Your task to perform on an android device: Search for rayovac triple a on bestbuy.com, select the first entry, add it to the cart, then select checkout. Image 0: 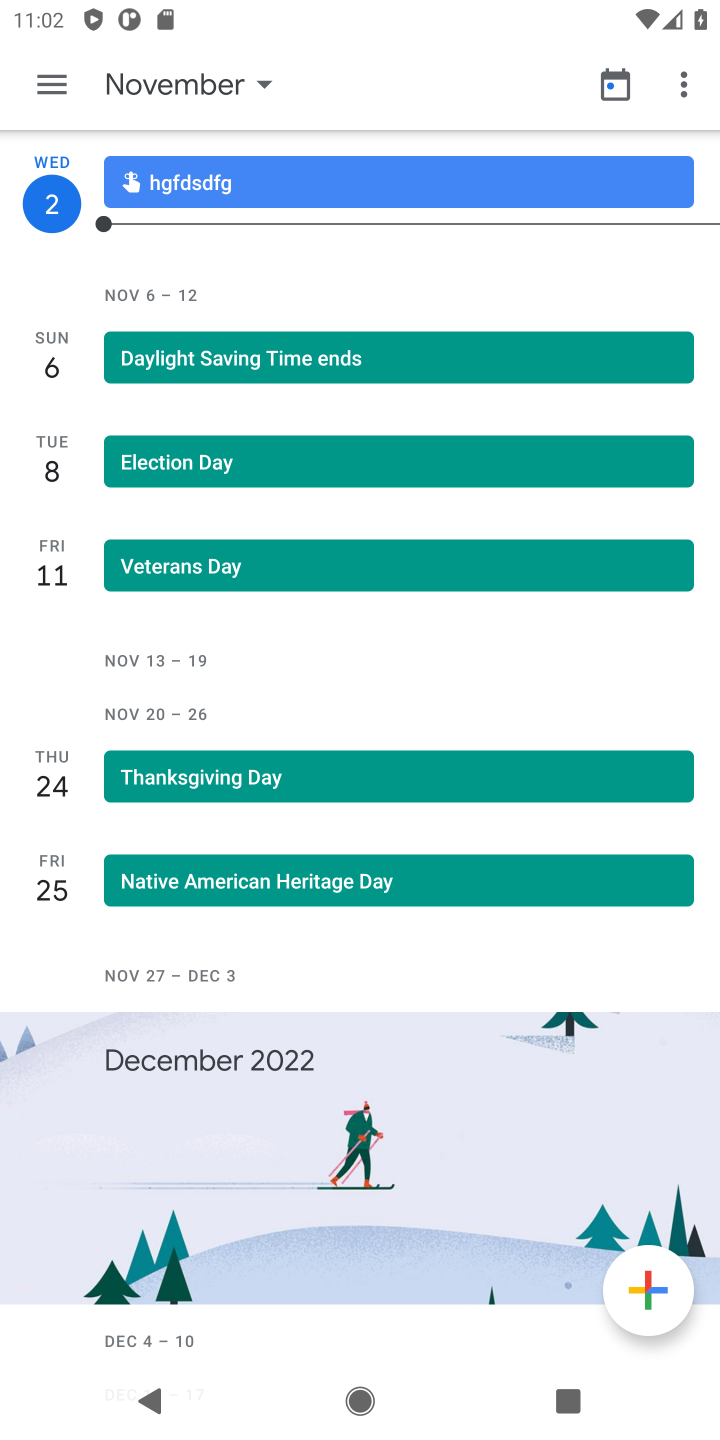
Step 0: press home button
Your task to perform on an android device: Search for rayovac triple a on bestbuy.com, select the first entry, add it to the cart, then select checkout. Image 1: 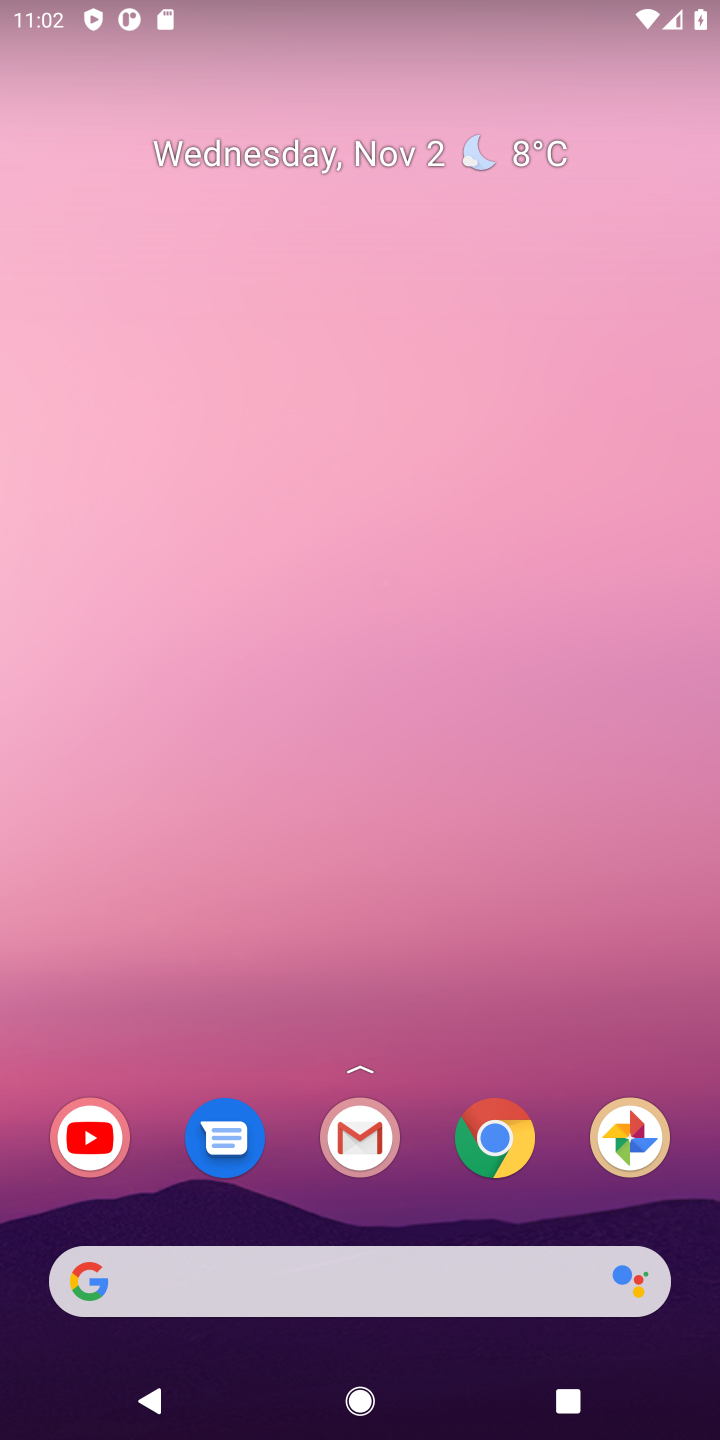
Step 1: click (495, 1147)
Your task to perform on an android device: Search for rayovac triple a on bestbuy.com, select the first entry, add it to the cart, then select checkout. Image 2: 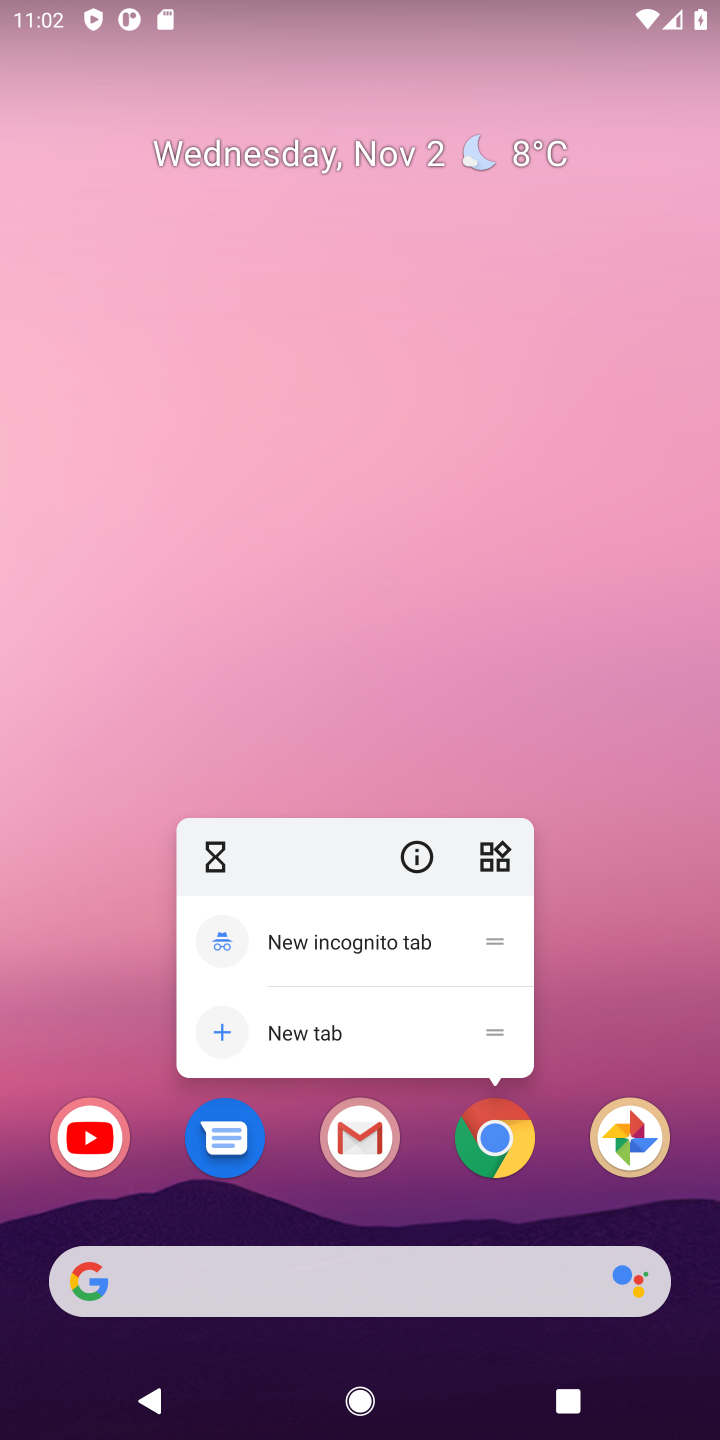
Step 2: click (495, 1147)
Your task to perform on an android device: Search for rayovac triple a on bestbuy.com, select the first entry, add it to the cart, then select checkout. Image 3: 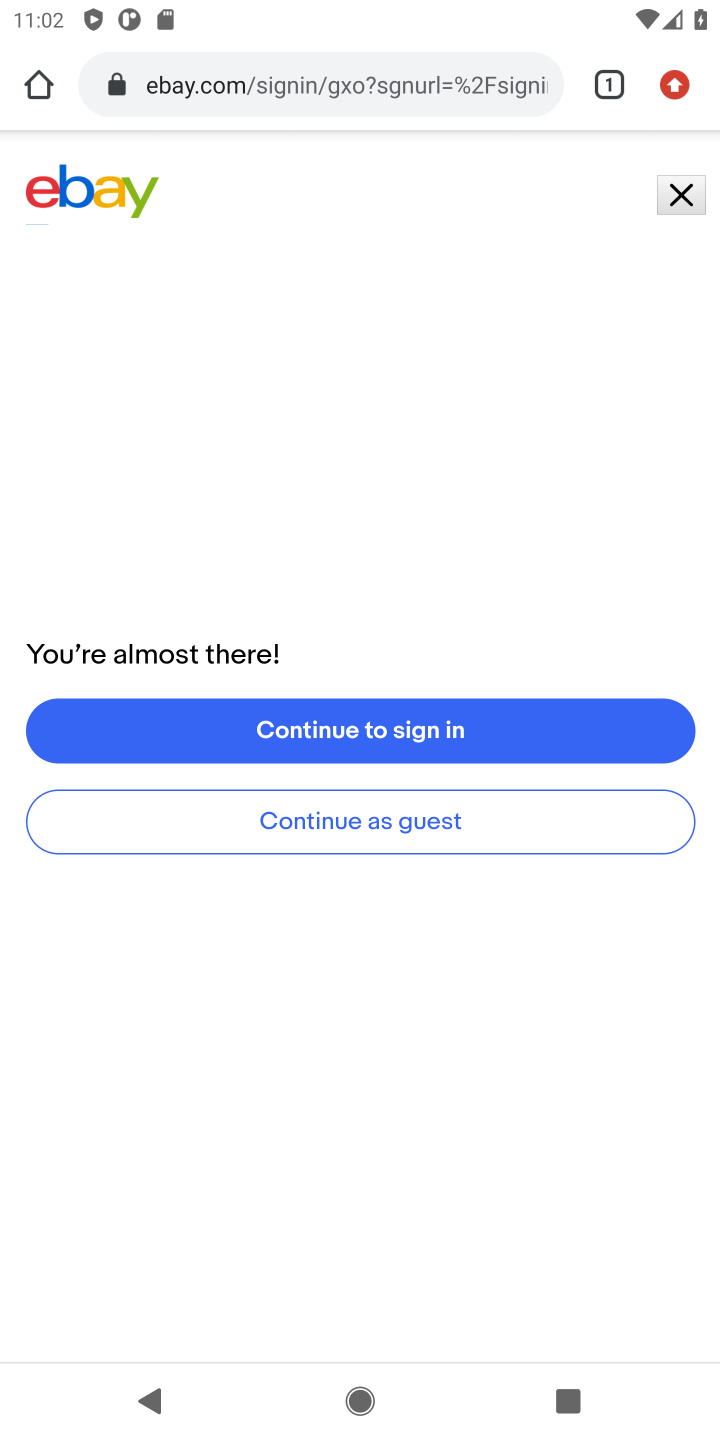
Step 3: click (189, 85)
Your task to perform on an android device: Search for rayovac triple a on bestbuy.com, select the first entry, add it to the cart, then select checkout. Image 4: 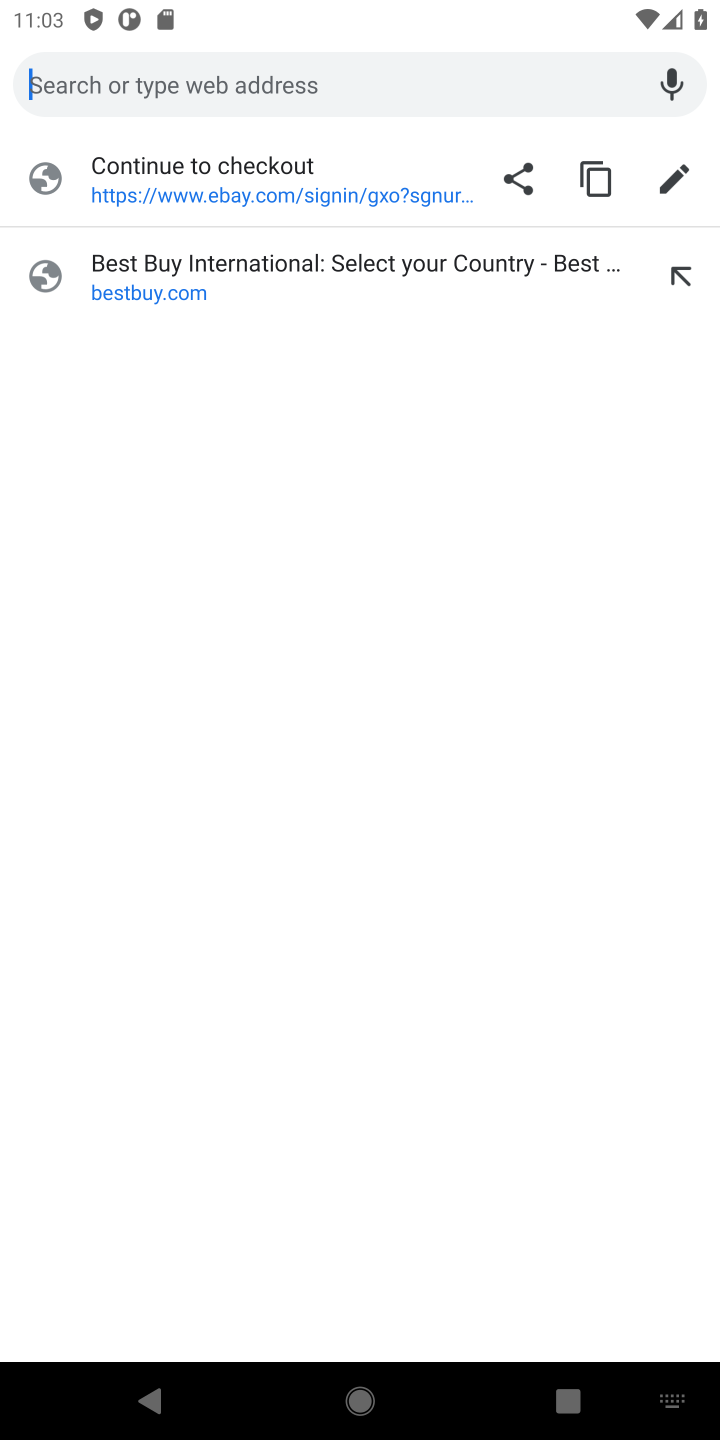
Step 4: type "bestbuy"
Your task to perform on an android device: Search for rayovac triple a on bestbuy.com, select the first entry, add it to the cart, then select checkout. Image 5: 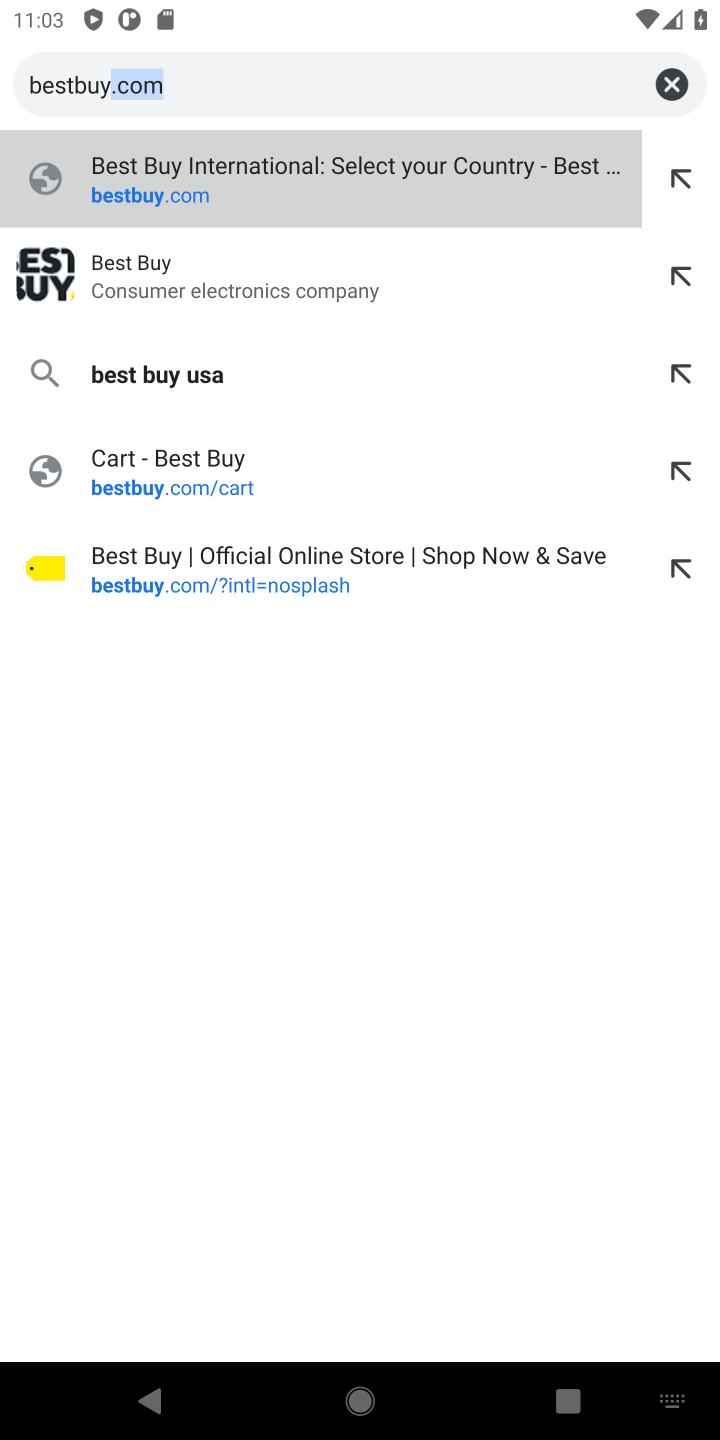
Step 5: click (192, 280)
Your task to perform on an android device: Search for rayovac triple a on bestbuy.com, select the first entry, add it to the cart, then select checkout. Image 6: 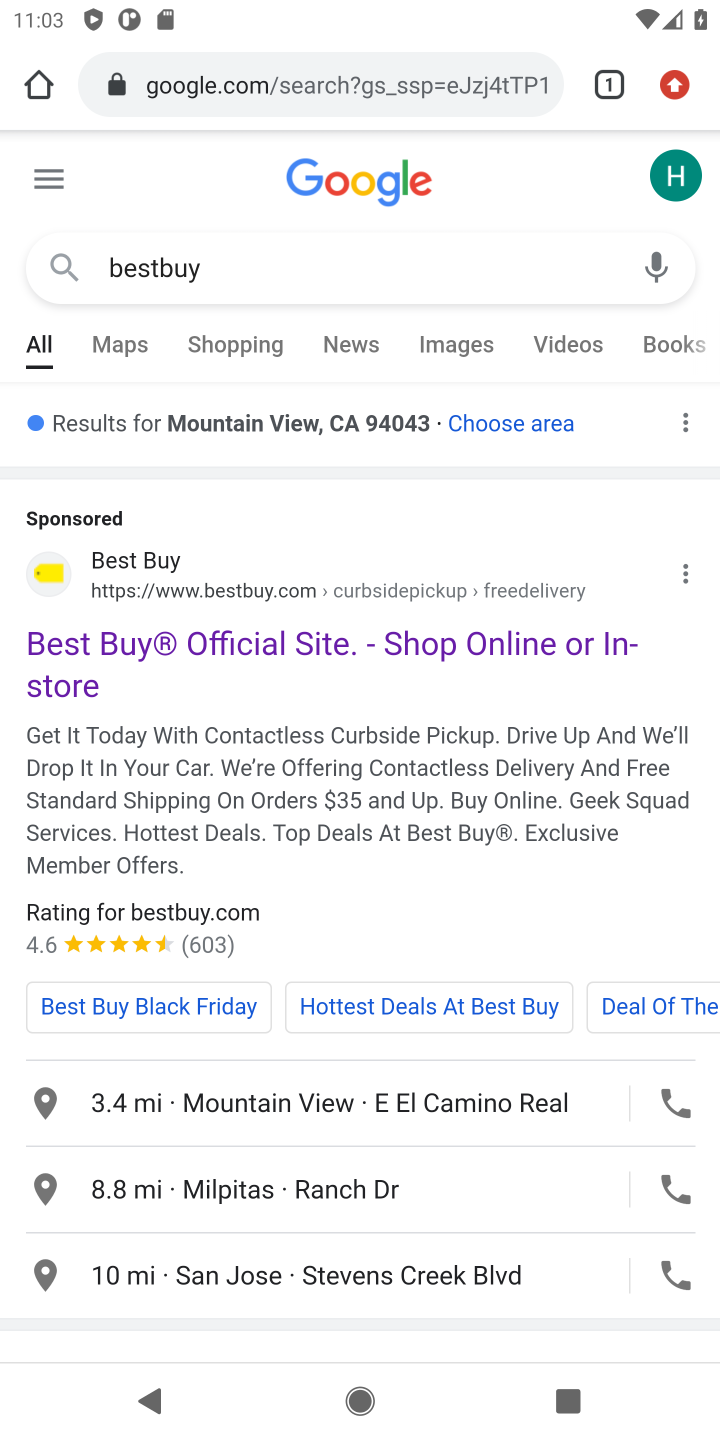
Step 6: click (192, 280)
Your task to perform on an android device: Search for rayovac triple a on bestbuy.com, select the first entry, add it to the cart, then select checkout. Image 7: 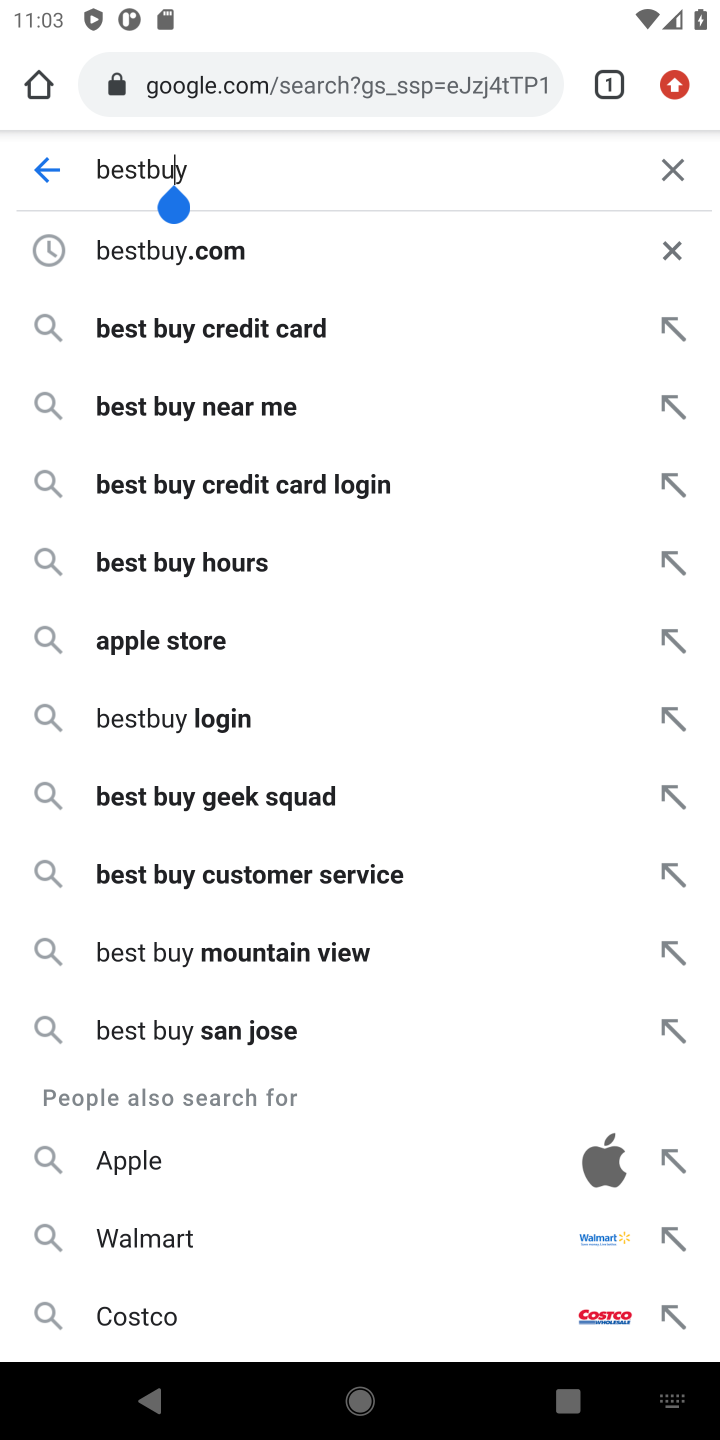
Step 7: click (192, 250)
Your task to perform on an android device: Search for rayovac triple a on bestbuy.com, select the first entry, add it to the cart, then select checkout. Image 8: 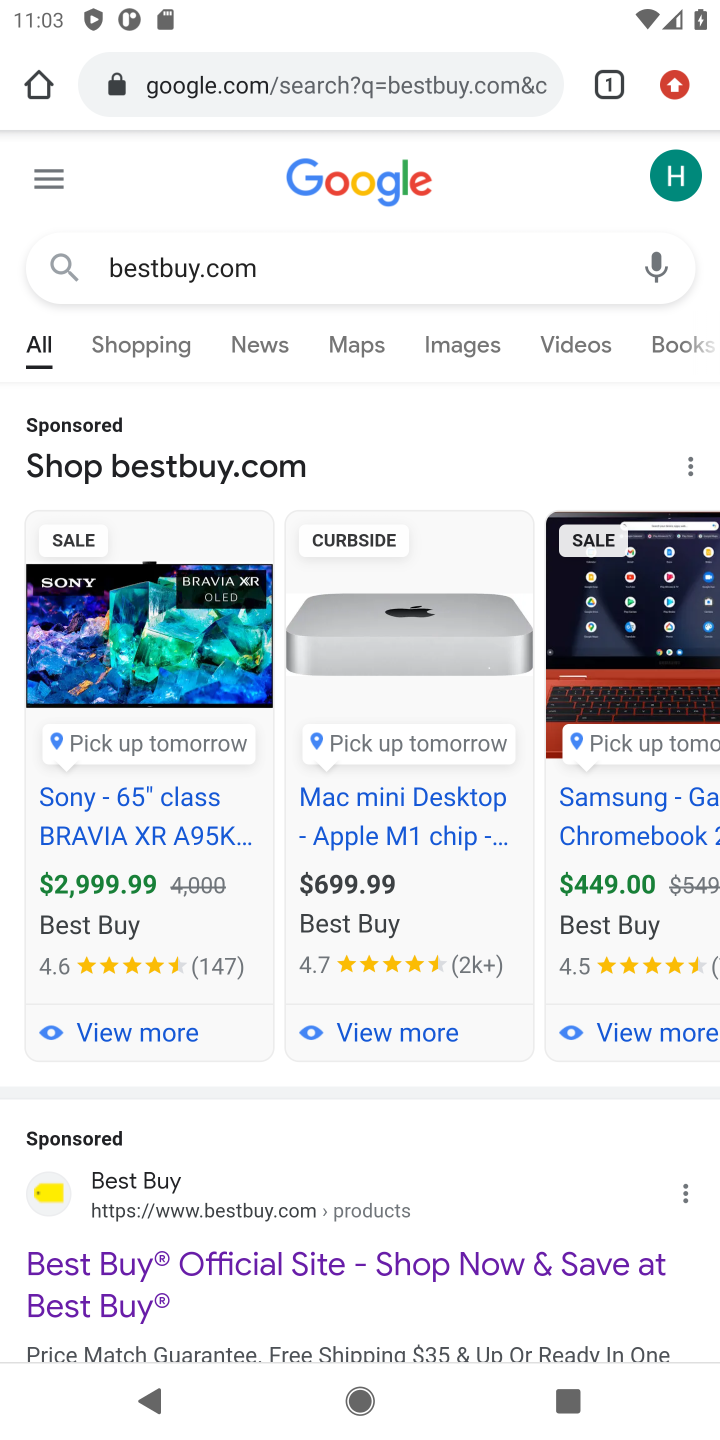
Step 8: click (111, 1262)
Your task to perform on an android device: Search for rayovac triple a on bestbuy.com, select the first entry, add it to the cart, then select checkout. Image 9: 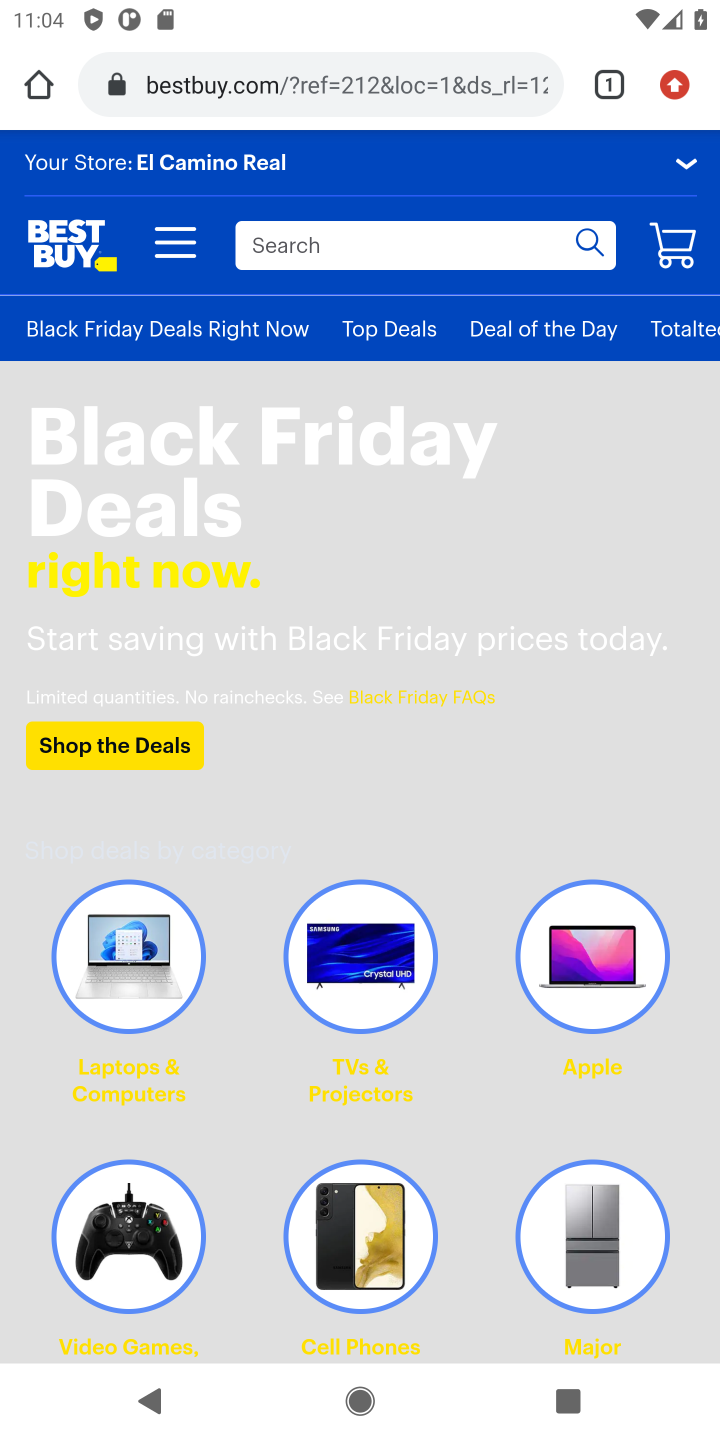
Step 9: click (359, 252)
Your task to perform on an android device: Search for rayovac triple a on bestbuy.com, select the first entry, add it to the cart, then select checkout. Image 10: 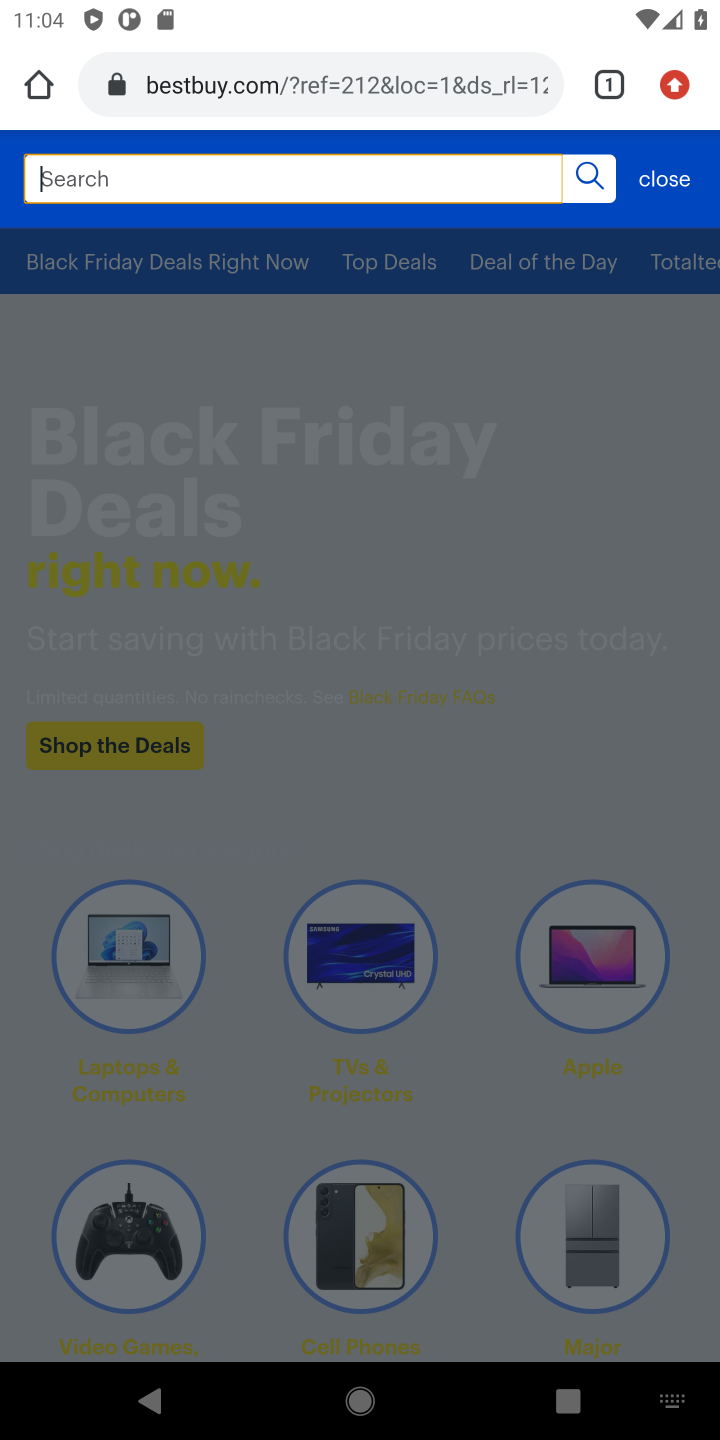
Step 10: type "rayovac triple a "
Your task to perform on an android device: Search for rayovac triple a on bestbuy.com, select the first entry, add it to the cart, then select checkout. Image 11: 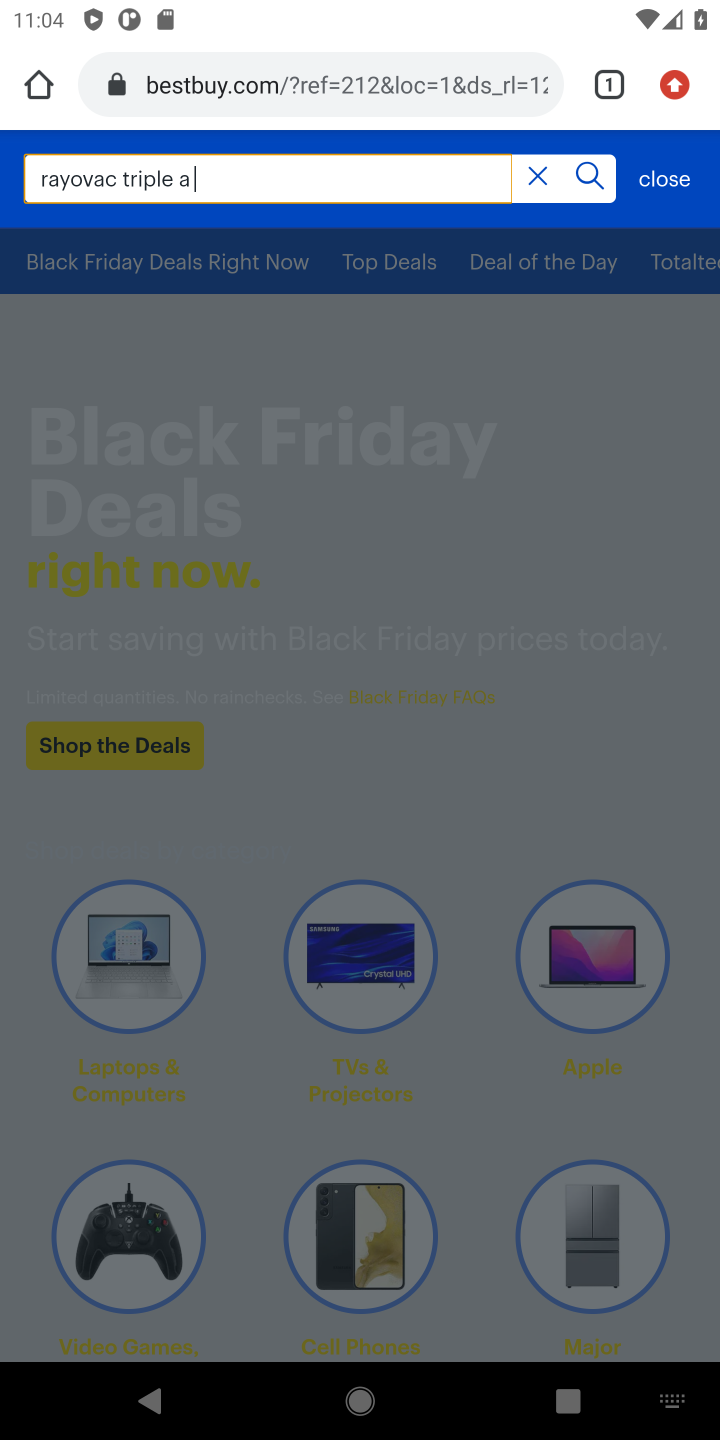
Step 11: click (590, 181)
Your task to perform on an android device: Search for rayovac triple a on bestbuy.com, select the first entry, add it to the cart, then select checkout. Image 12: 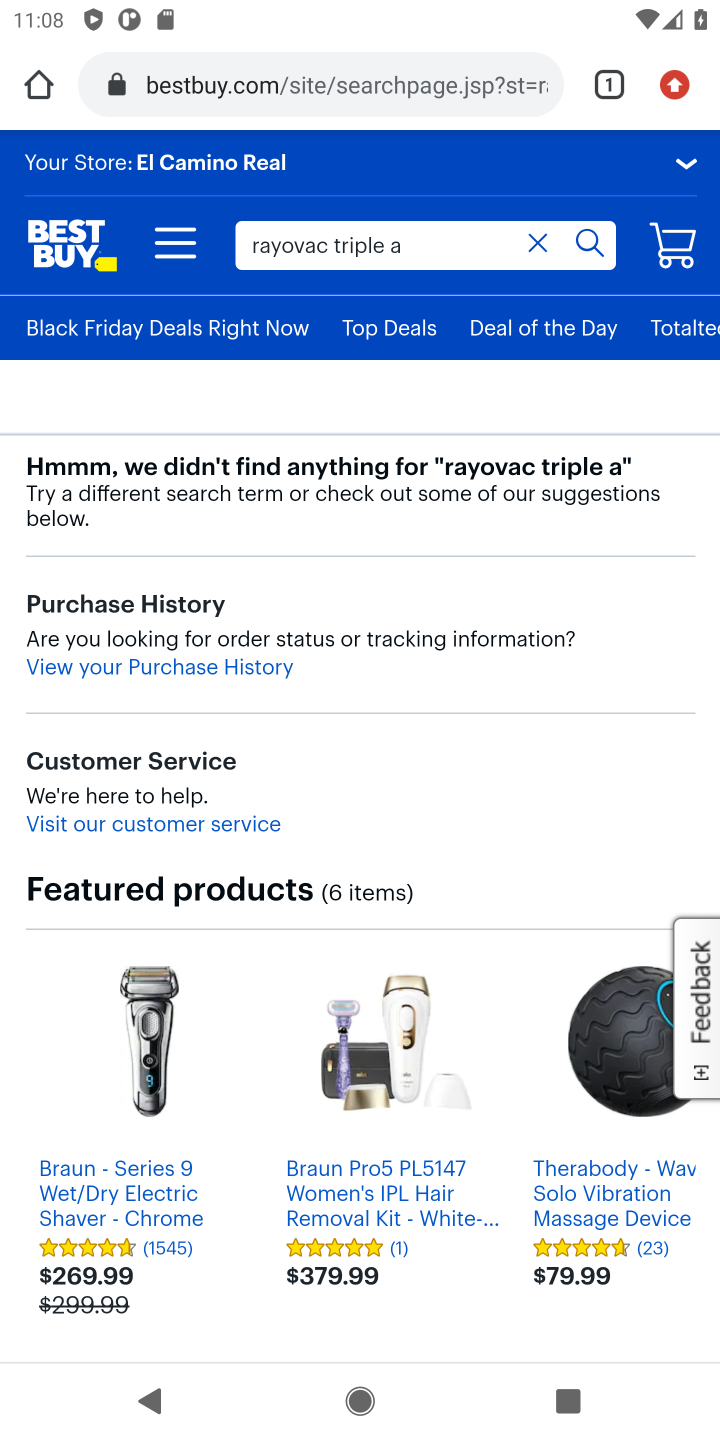
Step 12: task complete